Your task to perform on an android device: change the clock display to analog Image 0: 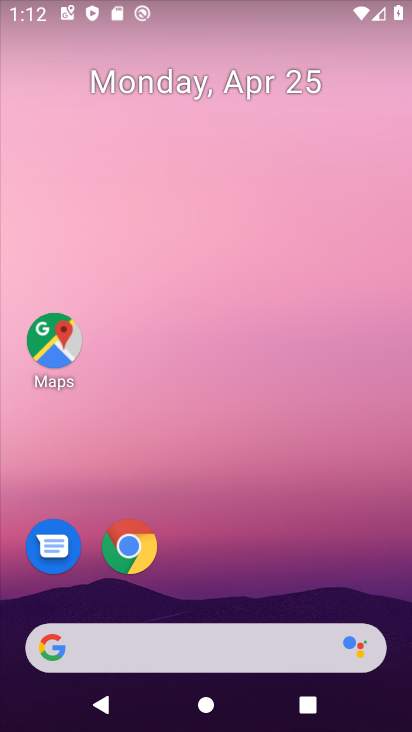
Step 0: drag from (218, 524) to (212, 0)
Your task to perform on an android device: change the clock display to analog Image 1: 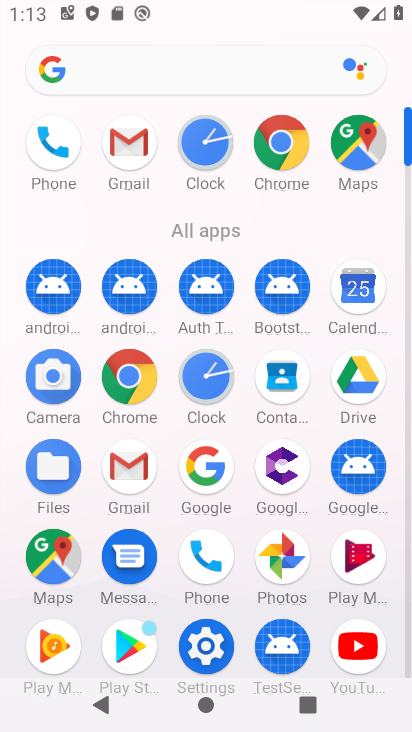
Step 1: click (207, 388)
Your task to perform on an android device: change the clock display to analog Image 2: 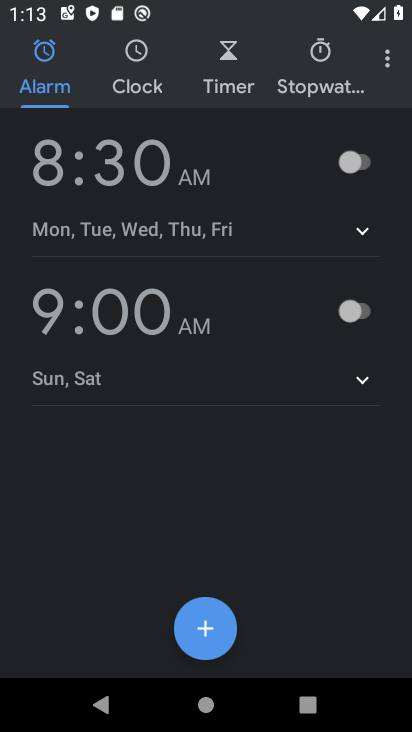
Step 2: click (387, 77)
Your task to perform on an android device: change the clock display to analog Image 3: 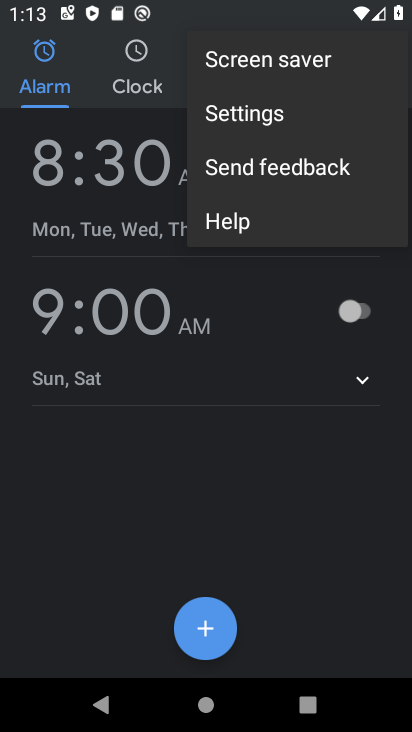
Step 3: click (243, 115)
Your task to perform on an android device: change the clock display to analog Image 4: 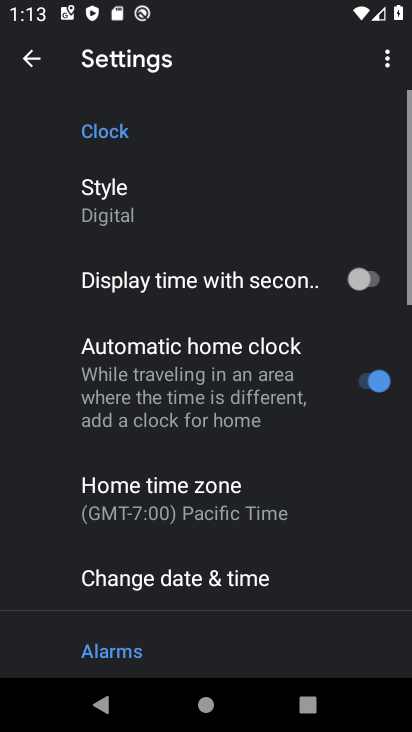
Step 4: click (155, 184)
Your task to perform on an android device: change the clock display to analog Image 5: 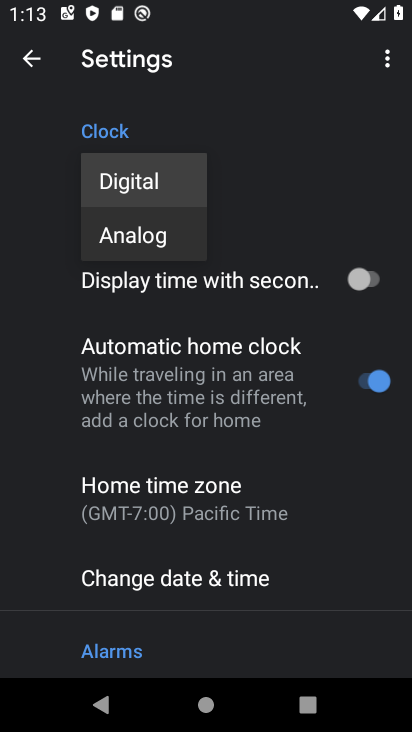
Step 5: click (154, 218)
Your task to perform on an android device: change the clock display to analog Image 6: 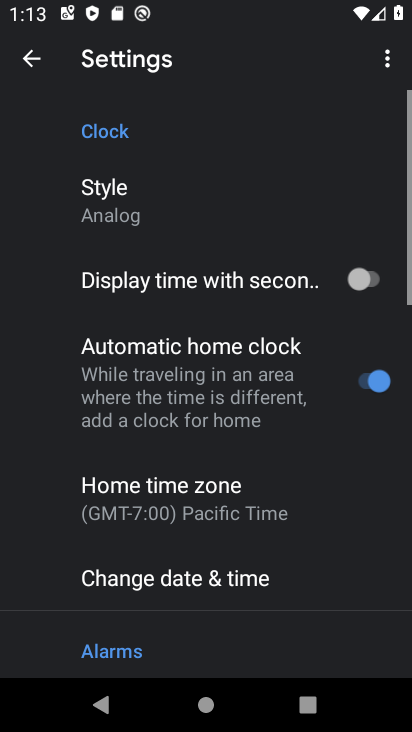
Step 6: task complete